Your task to perform on an android device: turn pop-ups off in chrome Image 0: 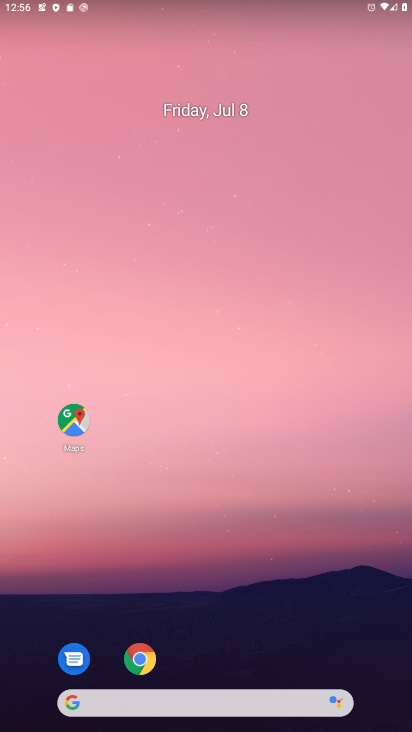
Step 0: click (137, 663)
Your task to perform on an android device: turn pop-ups off in chrome Image 1: 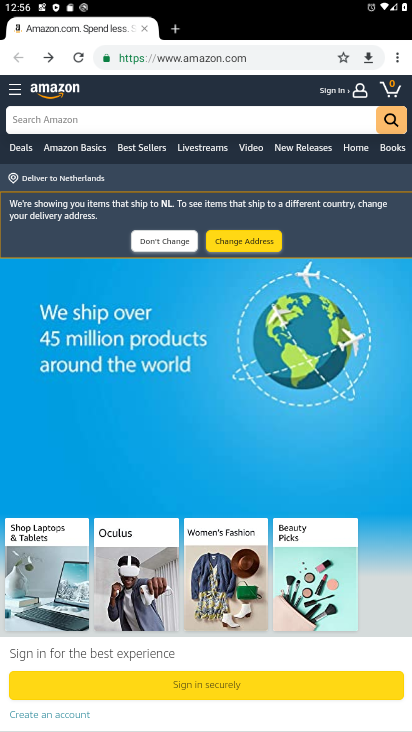
Step 1: click (399, 57)
Your task to perform on an android device: turn pop-ups off in chrome Image 2: 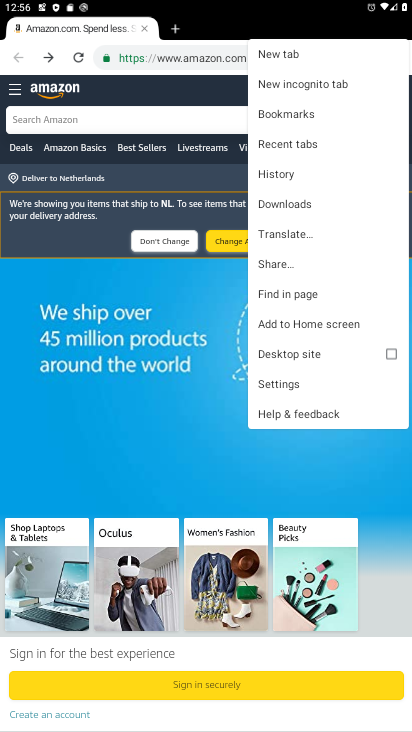
Step 2: click (280, 386)
Your task to perform on an android device: turn pop-ups off in chrome Image 3: 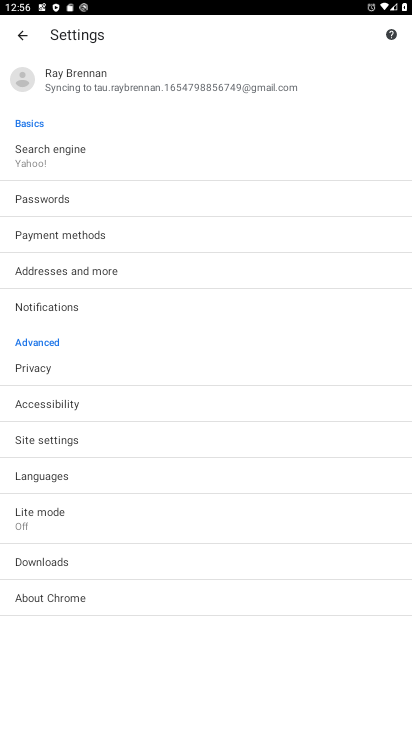
Step 3: click (52, 435)
Your task to perform on an android device: turn pop-ups off in chrome Image 4: 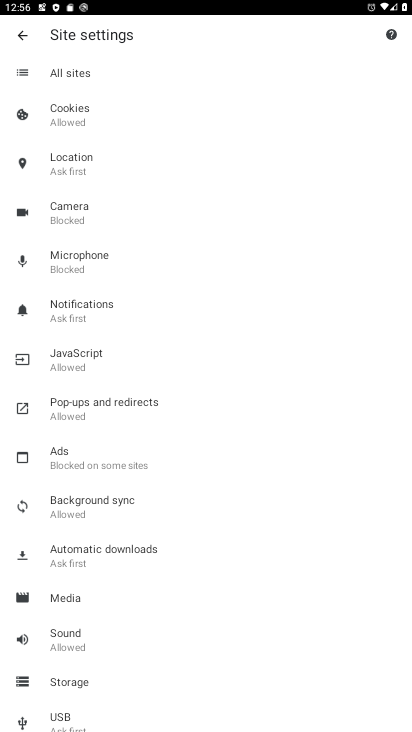
Step 4: click (108, 399)
Your task to perform on an android device: turn pop-ups off in chrome Image 5: 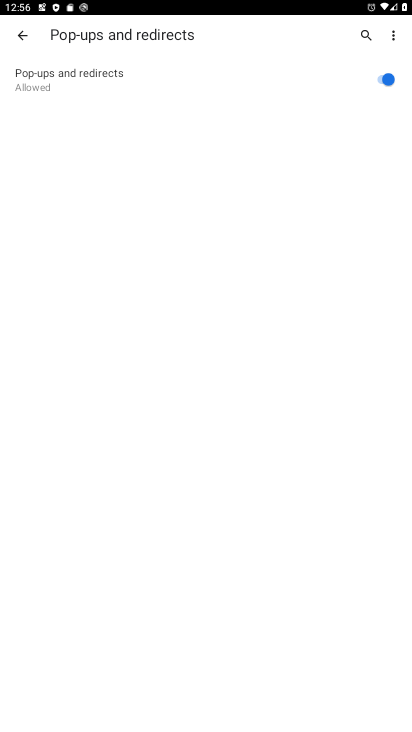
Step 5: click (383, 76)
Your task to perform on an android device: turn pop-ups off in chrome Image 6: 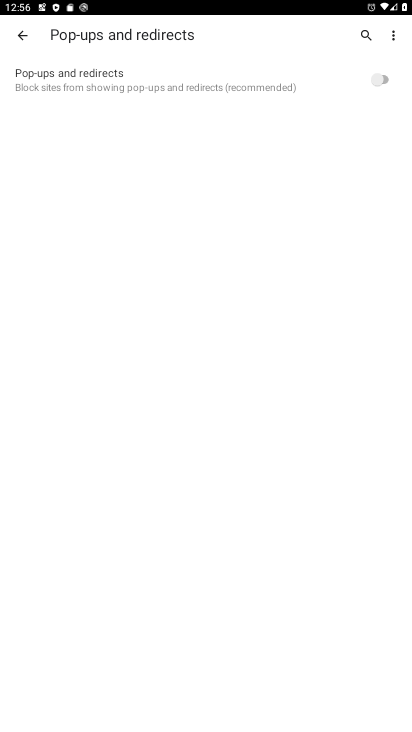
Step 6: task complete